Your task to perform on an android device: Play the last video I watched on Youtube Image 0: 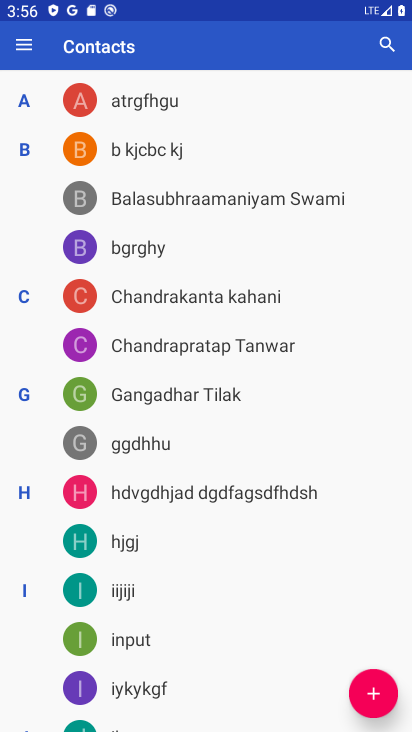
Step 0: press back button
Your task to perform on an android device: Play the last video I watched on Youtube Image 1: 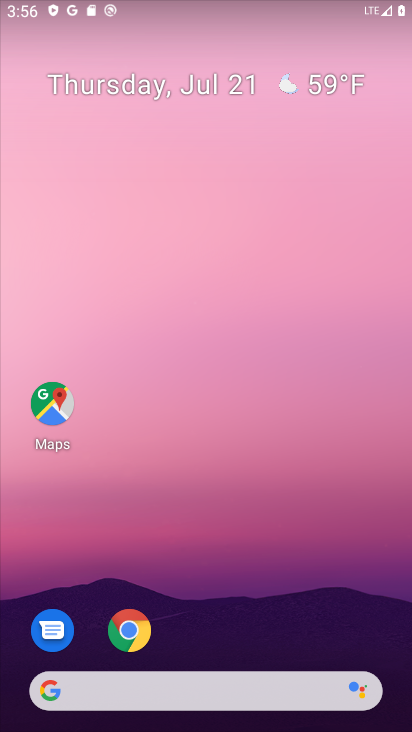
Step 1: drag from (219, 581) to (220, 16)
Your task to perform on an android device: Play the last video I watched on Youtube Image 2: 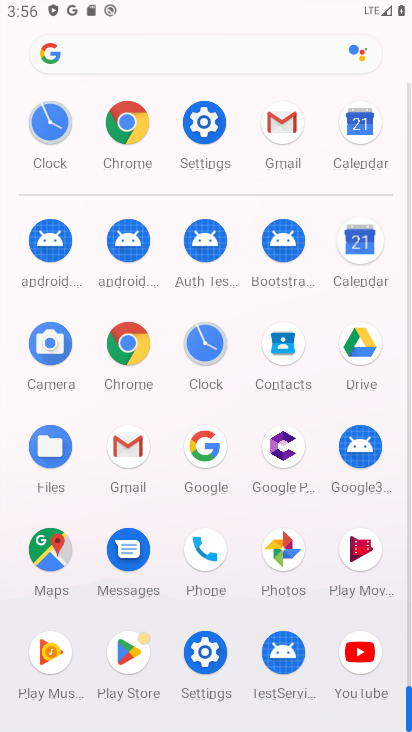
Step 2: click (355, 648)
Your task to perform on an android device: Play the last video I watched on Youtube Image 3: 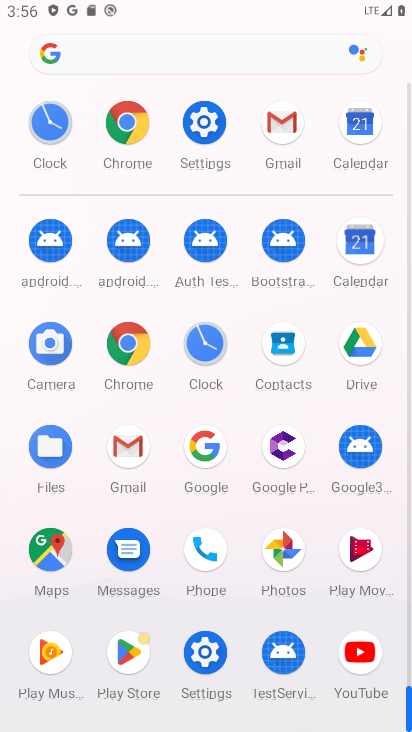
Step 3: click (356, 648)
Your task to perform on an android device: Play the last video I watched on Youtube Image 4: 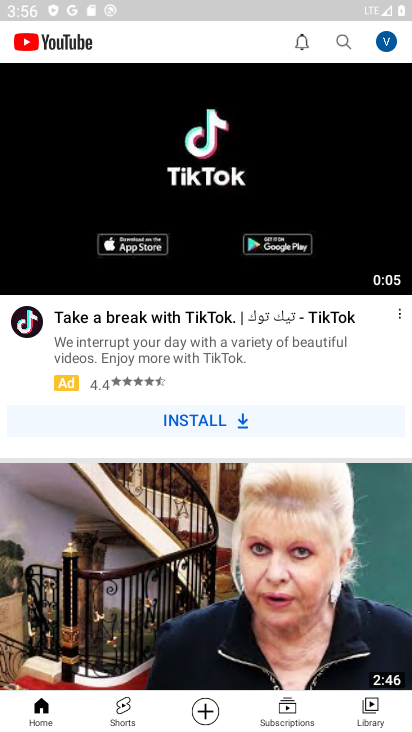
Step 4: task complete